Your task to perform on an android device: toggle show notifications on the lock screen Image 0: 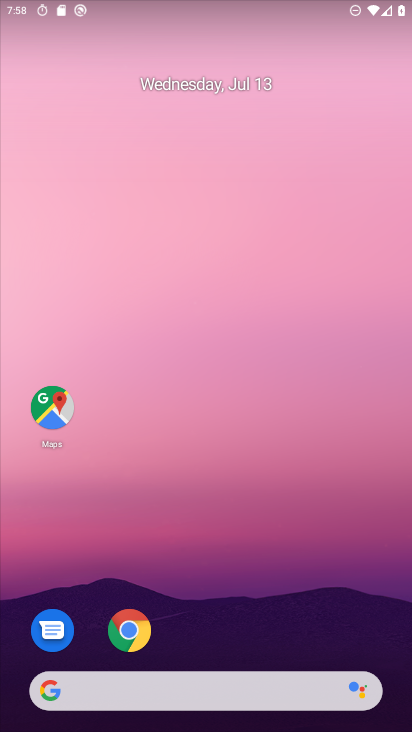
Step 0: drag from (366, 640) to (267, 23)
Your task to perform on an android device: toggle show notifications on the lock screen Image 1: 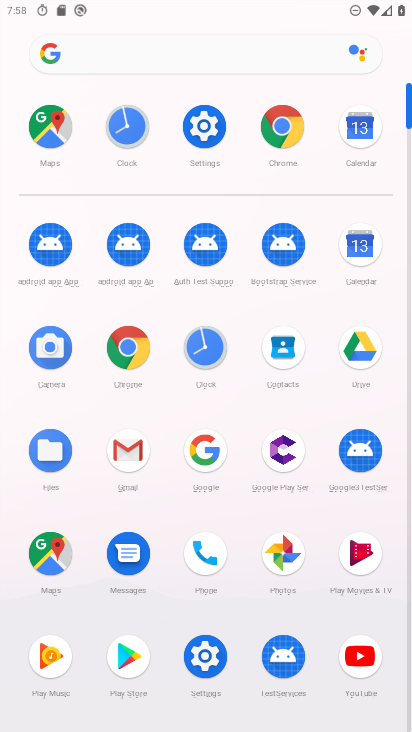
Step 1: click (212, 675)
Your task to perform on an android device: toggle show notifications on the lock screen Image 2: 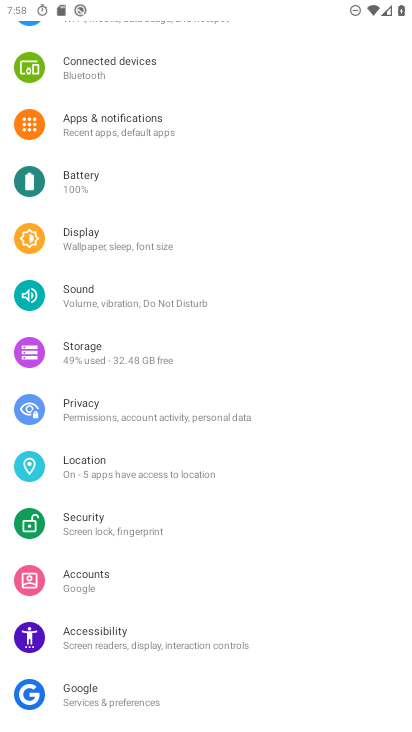
Step 2: click (162, 139)
Your task to perform on an android device: toggle show notifications on the lock screen Image 3: 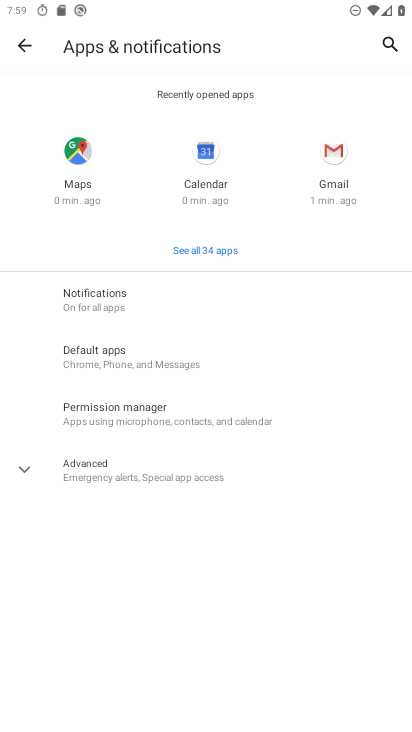
Step 3: click (141, 306)
Your task to perform on an android device: toggle show notifications on the lock screen Image 4: 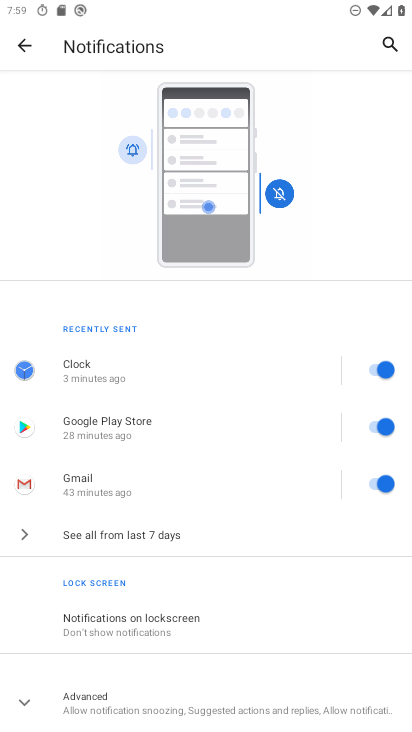
Step 4: click (113, 641)
Your task to perform on an android device: toggle show notifications on the lock screen Image 5: 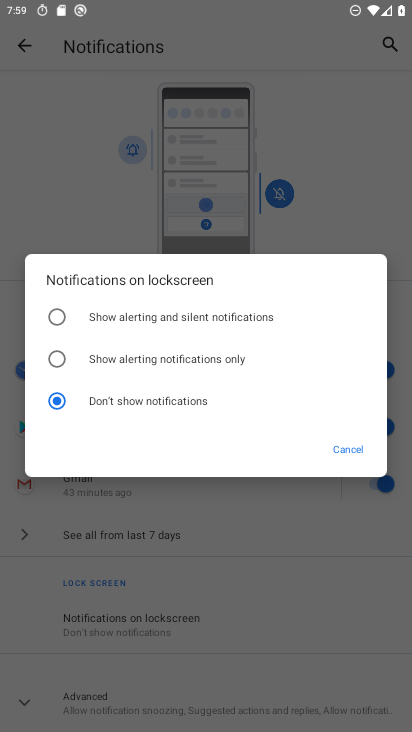
Step 5: click (48, 310)
Your task to perform on an android device: toggle show notifications on the lock screen Image 6: 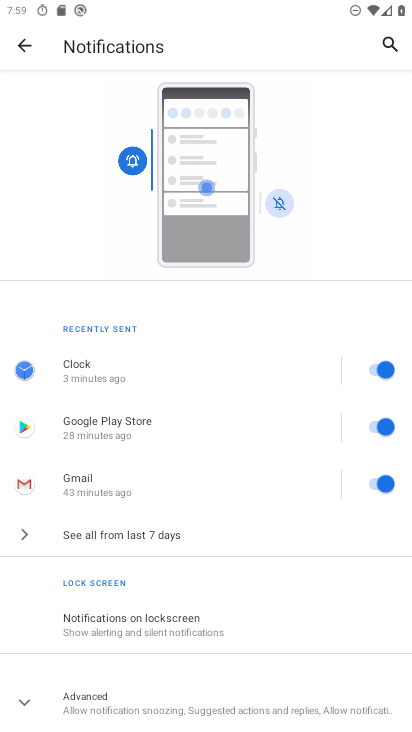
Step 6: task complete